Your task to perform on an android device: Go to internet settings Image 0: 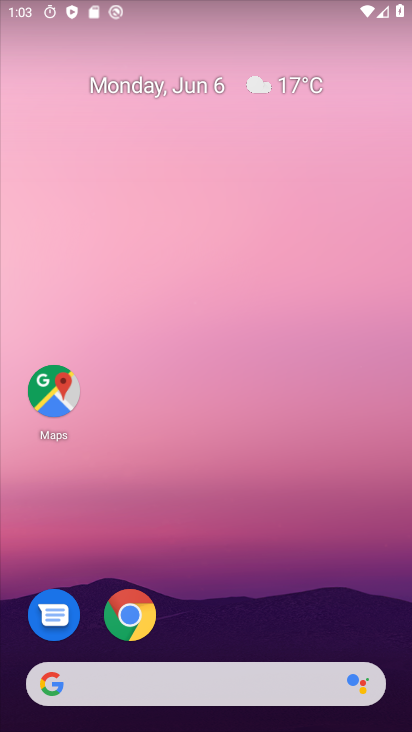
Step 0: drag from (197, 532) to (269, 167)
Your task to perform on an android device: Go to internet settings Image 1: 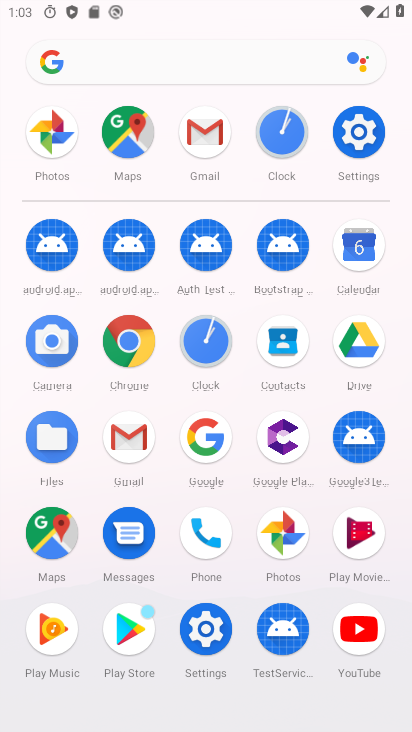
Step 1: click (267, 433)
Your task to perform on an android device: Go to internet settings Image 2: 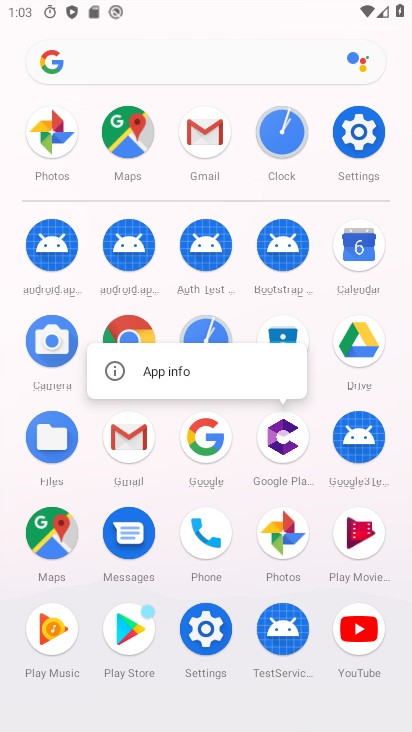
Step 2: click (359, 115)
Your task to perform on an android device: Go to internet settings Image 3: 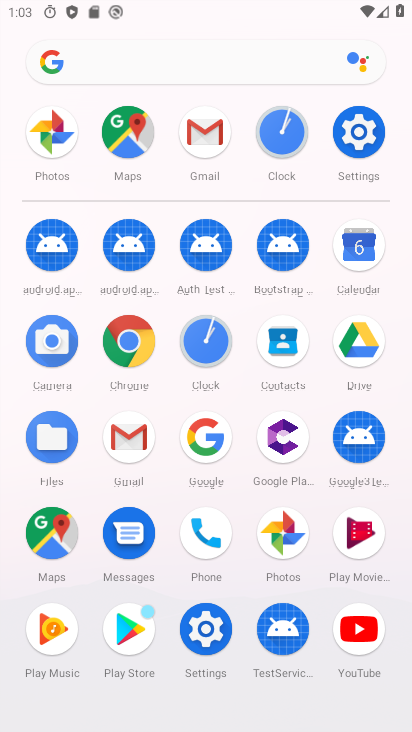
Step 3: click (351, 134)
Your task to perform on an android device: Go to internet settings Image 4: 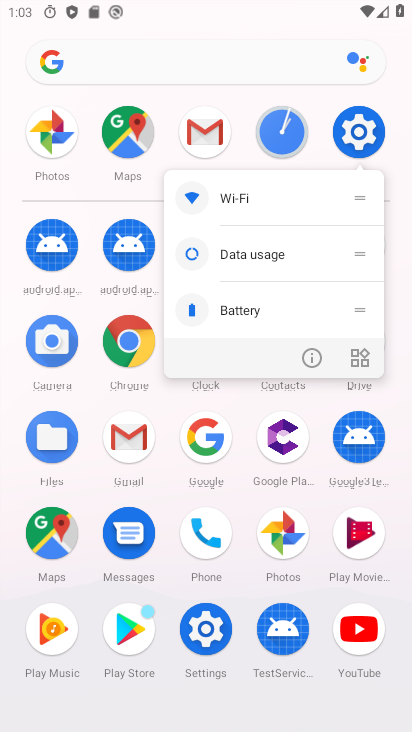
Step 4: click (308, 352)
Your task to perform on an android device: Go to internet settings Image 5: 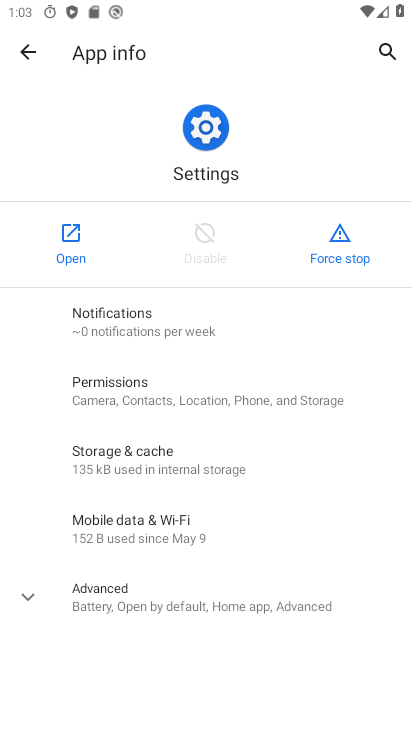
Step 5: click (73, 245)
Your task to perform on an android device: Go to internet settings Image 6: 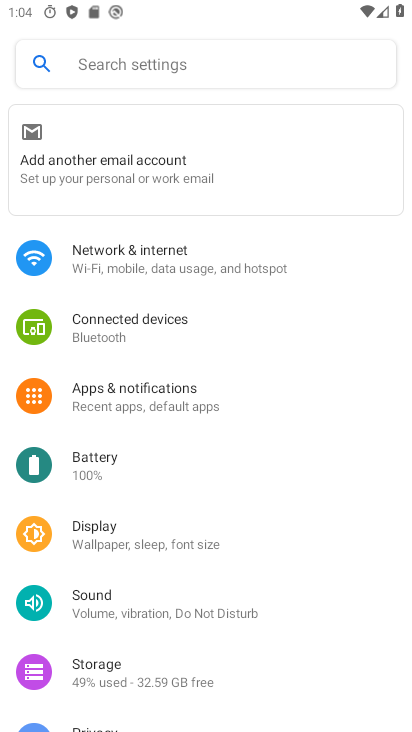
Step 6: click (145, 258)
Your task to perform on an android device: Go to internet settings Image 7: 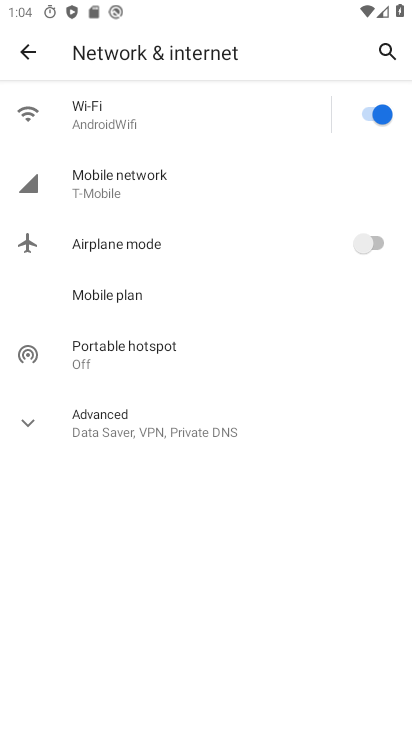
Step 7: task complete